Your task to perform on an android device: Open maps Image 0: 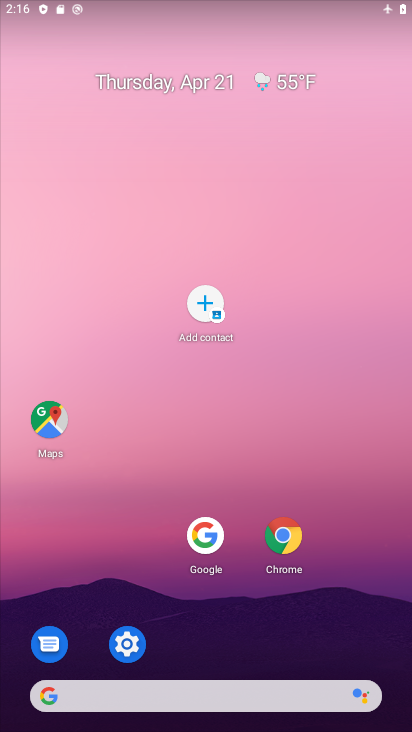
Step 0: drag from (186, 395) to (91, 10)
Your task to perform on an android device: Open maps Image 1: 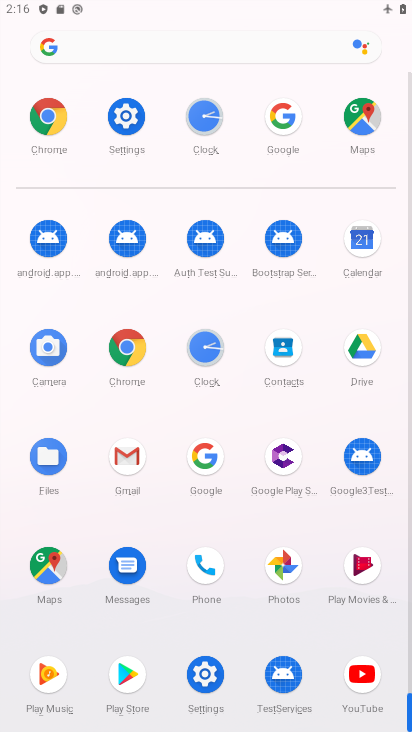
Step 1: click (361, 122)
Your task to perform on an android device: Open maps Image 2: 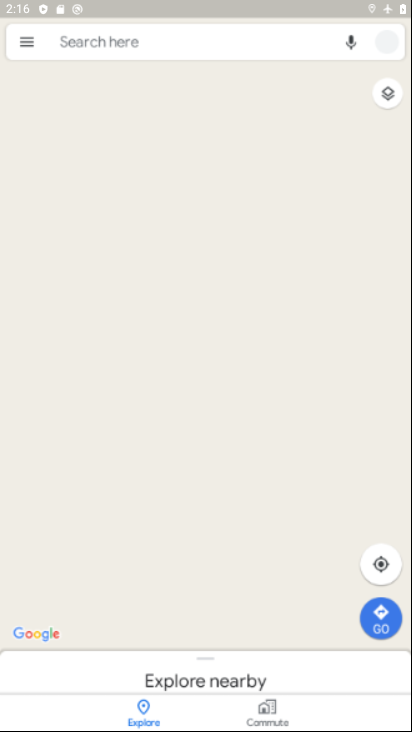
Step 2: click (361, 122)
Your task to perform on an android device: Open maps Image 3: 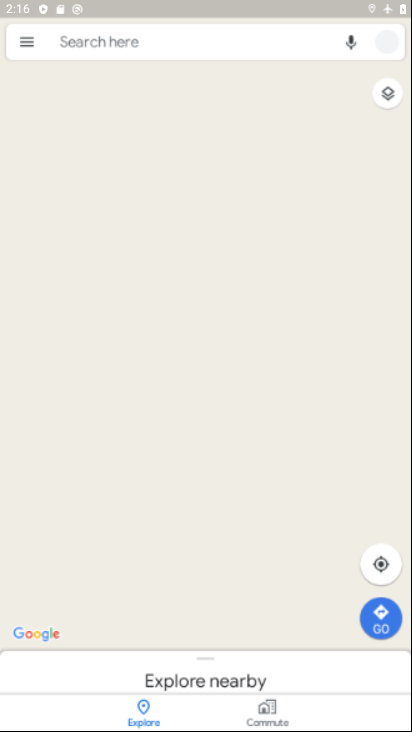
Step 3: click (361, 122)
Your task to perform on an android device: Open maps Image 4: 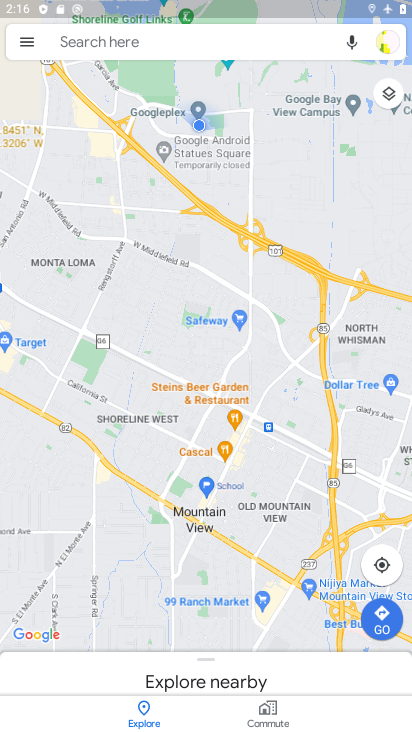
Step 4: task complete